Your task to perform on an android device: find which apps use the phone's location Image 0: 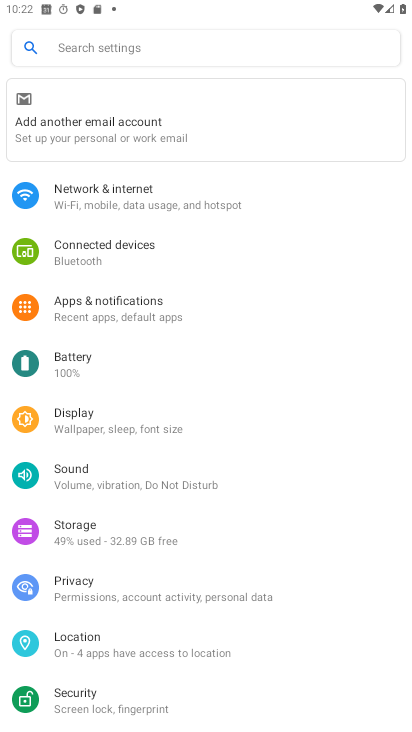
Step 0: drag from (222, 666) to (289, 272)
Your task to perform on an android device: find which apps use the phone's location Image 1: 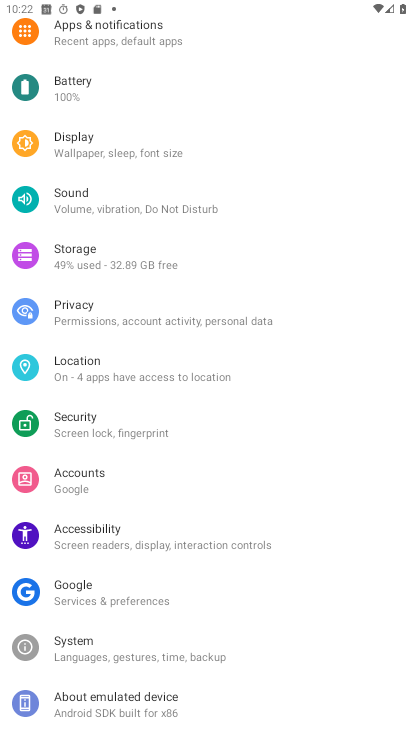
Step 1: click (94, 348)
Your task to perform on an android device: find which apps use the phone's location Image 2: 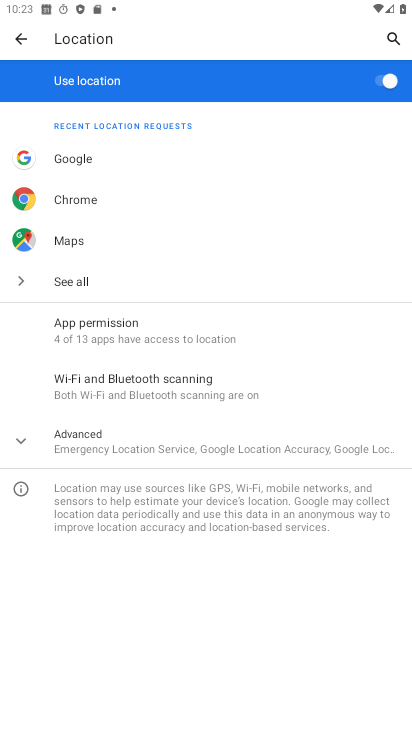
Step 2: click (135, 349)
Your task to perform on an android device: find which apps use the phone's location Image 3: 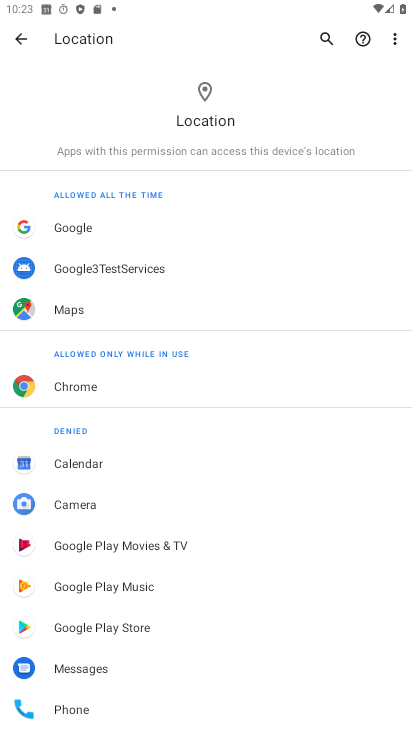
Step 3: task complete